Your task to perform on an android device: Open sound settings Image 0: 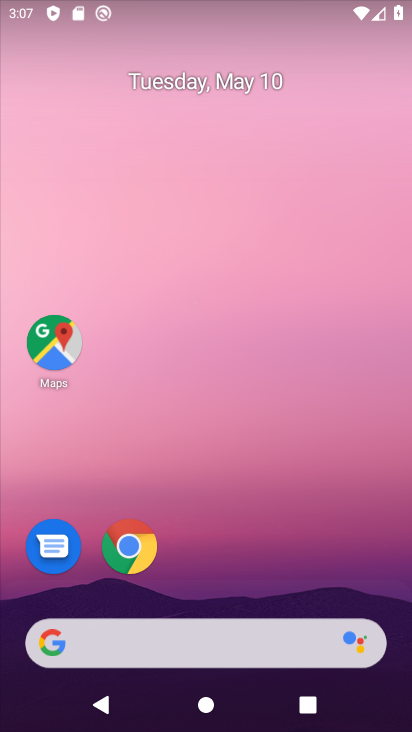
Step 0: drag from (200, 625) to (312, 59)
Your task to perform on an android device: Open sound settings Image 1: 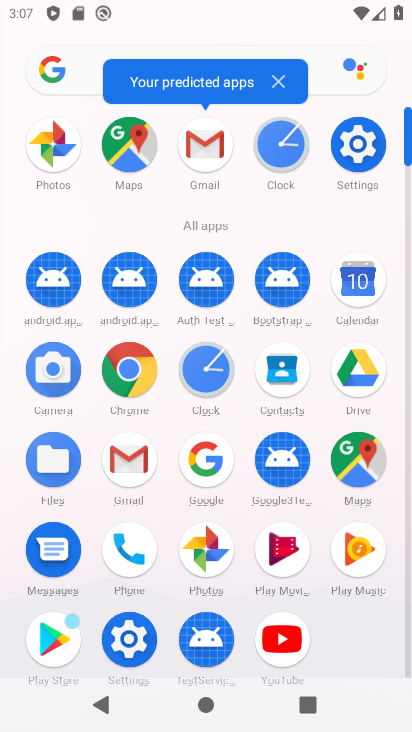
Step 1: click (144, 632)
Your task to perform on an android device: Open sound settings Image 2: 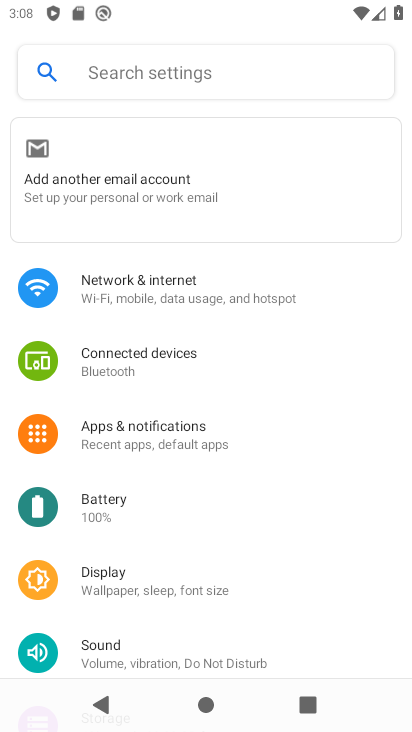
Step 2: drag from (103, 606) to (162, 323)
Your task to perform on an android device: Open sound settings Image 3: 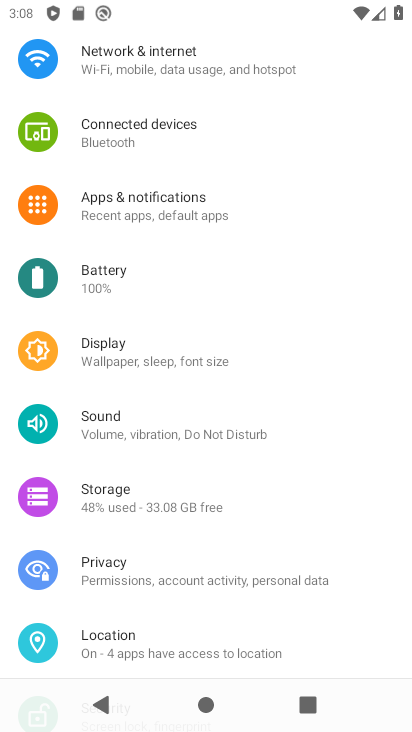
Step 3: click (116, 429)
Your task to perform on an android device: Open sound settings Image 4: 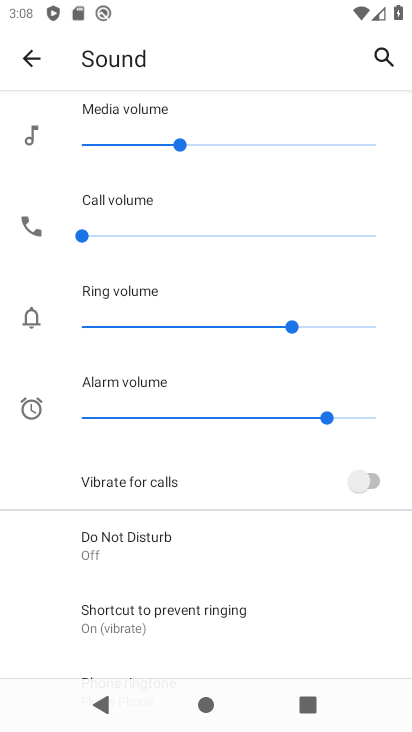
Step 4: task complete